Your task to perform on an android device: Open internet settings Image 0: 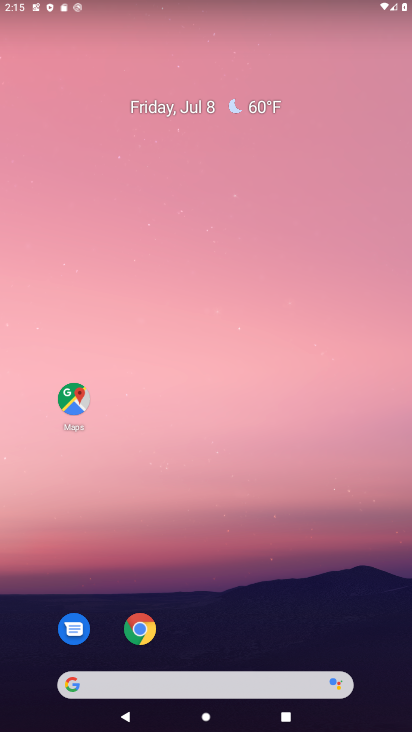
Step 0: drag from (199, 621) to (210, 277)
Your task to perform on an android device: Open internet settings Image 1: 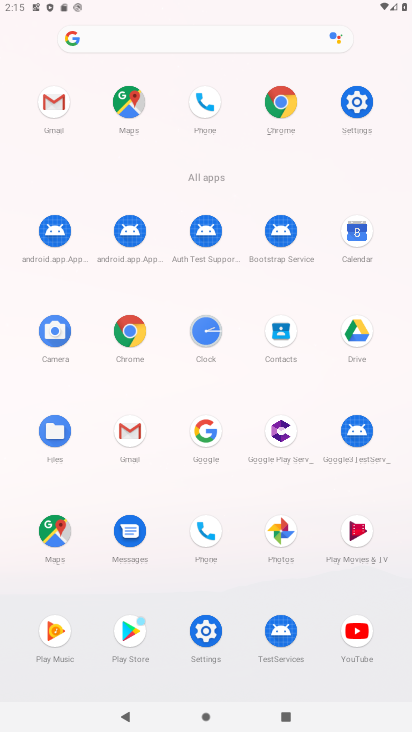
Step 1: click (336, 114)
Your task to perform on an android device: Open internet settings Image 2: 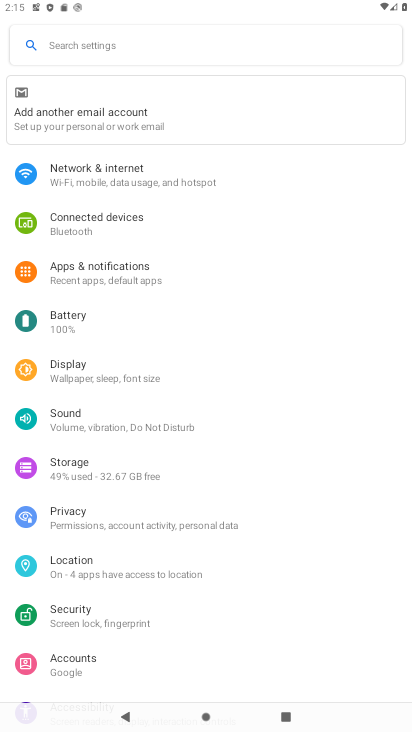
Step 2: click (132, 178)
Your task to perform on an android device: Open internet settings Image 3: 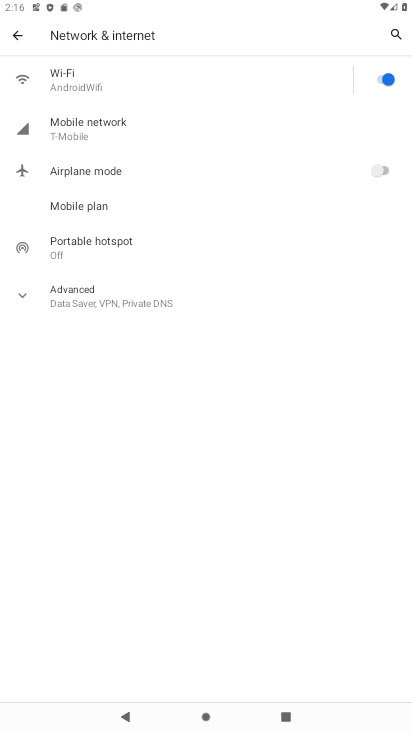
Step 3: task complete